Your task to perform on an android device: Show the shopping cart on amazon. Search for amazon basics triple a on amazon, select the first entry, add it to the cart, then select checkout. Image 0: 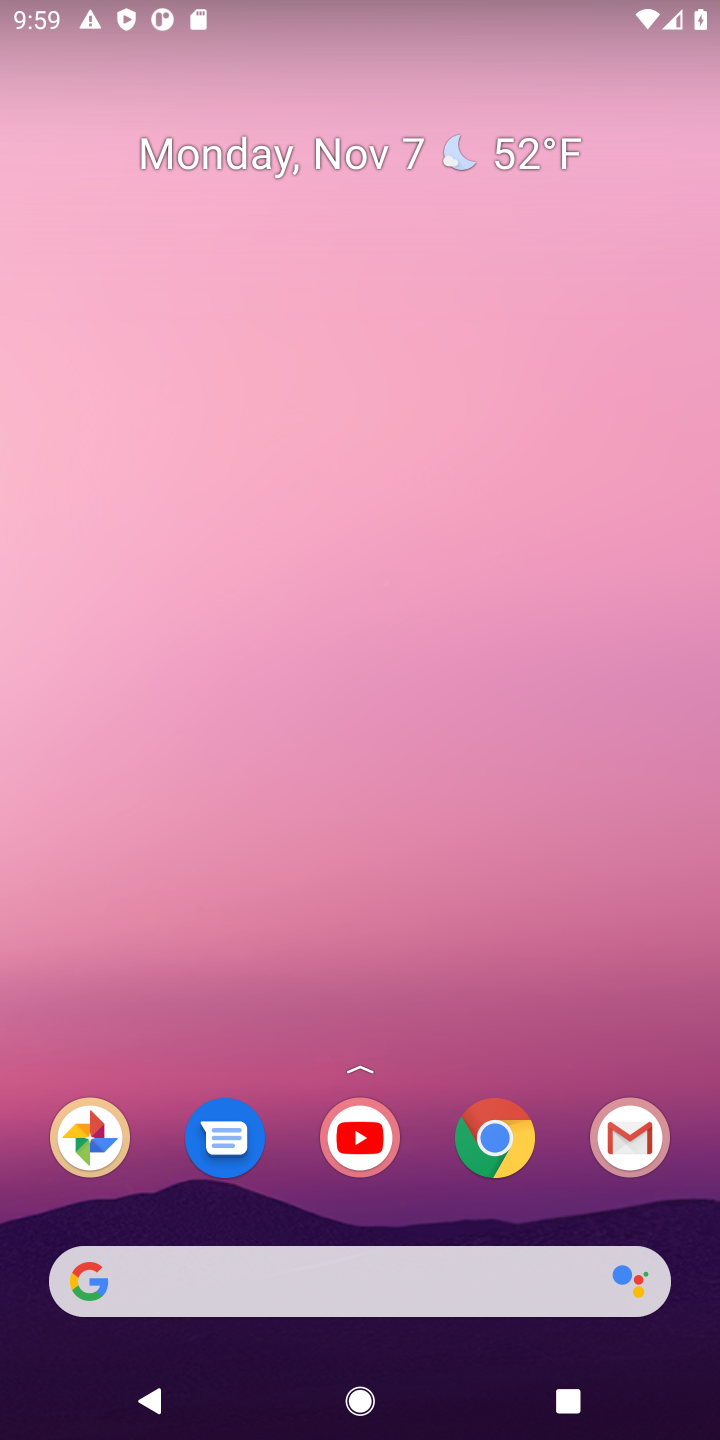
Step 0: drag from (422, 1198) to (346, 275)
Your task to perform on an android device: Show the shopping cart on amazon. Search for amazon basics triple a on amazon, select the first entry, add it to the cart, then select checkout. Image 1: 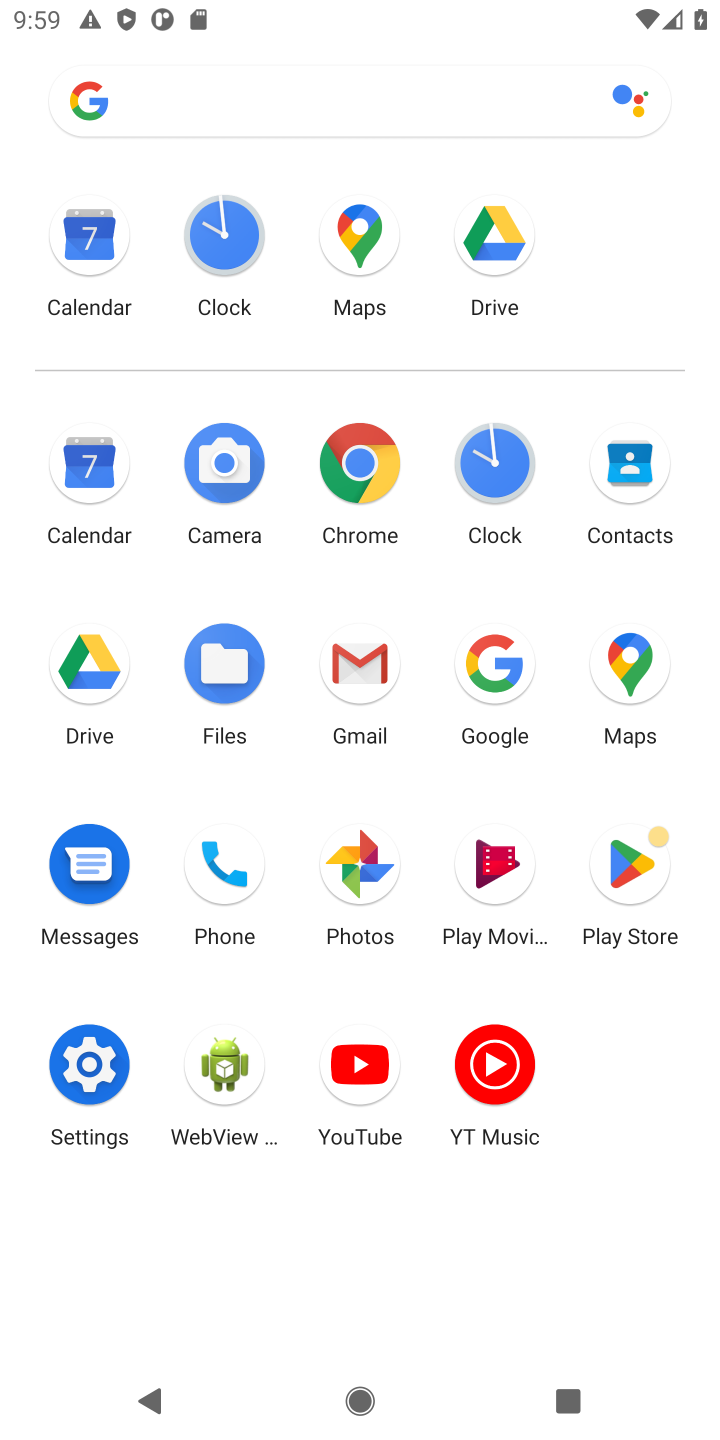
Step 1: click (359, 457)
Your task to perform on an android device: Show the shopping cart on amazon. Search for amazon basics triple a on amazon, select the first entry, add it to the cart, then select checkout. Image 2: 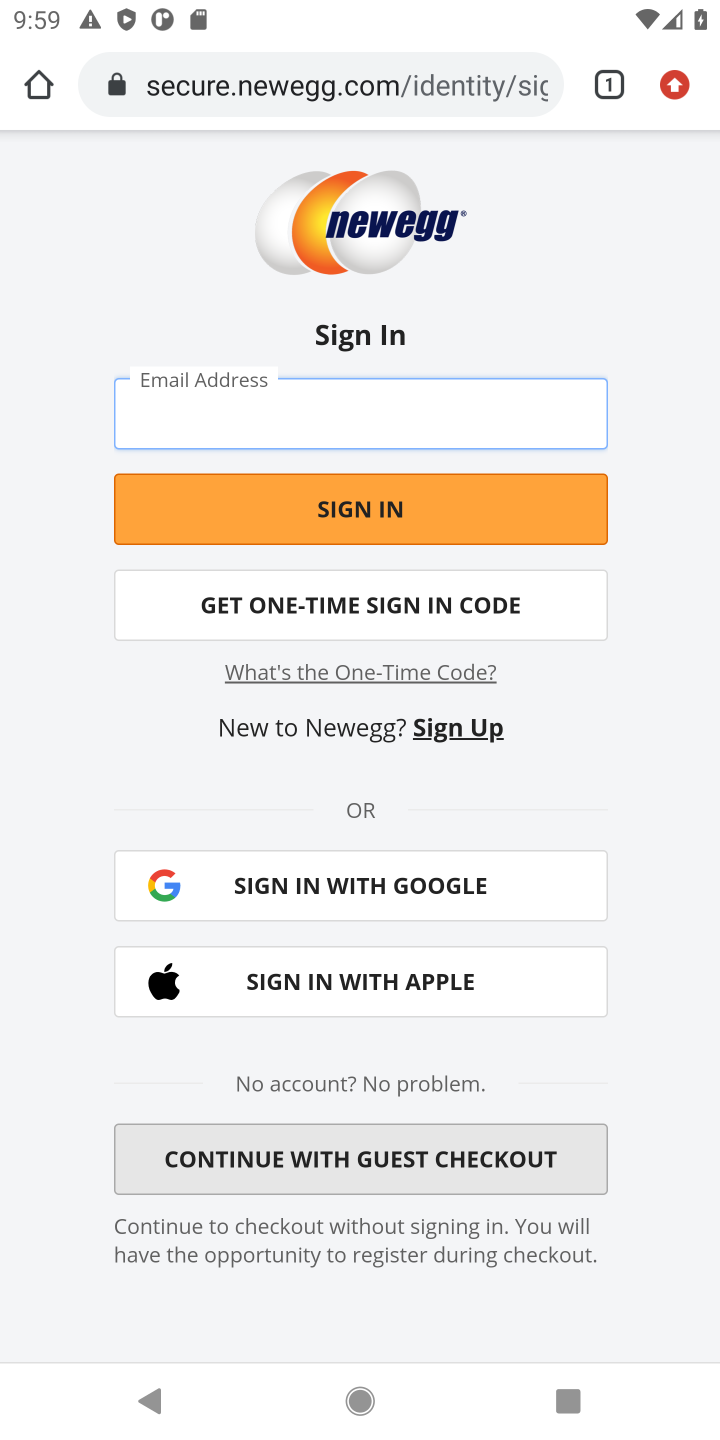
Step 2: click (395, 85)
Your task to perform on an android device: Show the shopping cart on amazon. Search for amazon basics triple a on amazon, select the first entry, add it to the cart, then select checkout. Image 3: 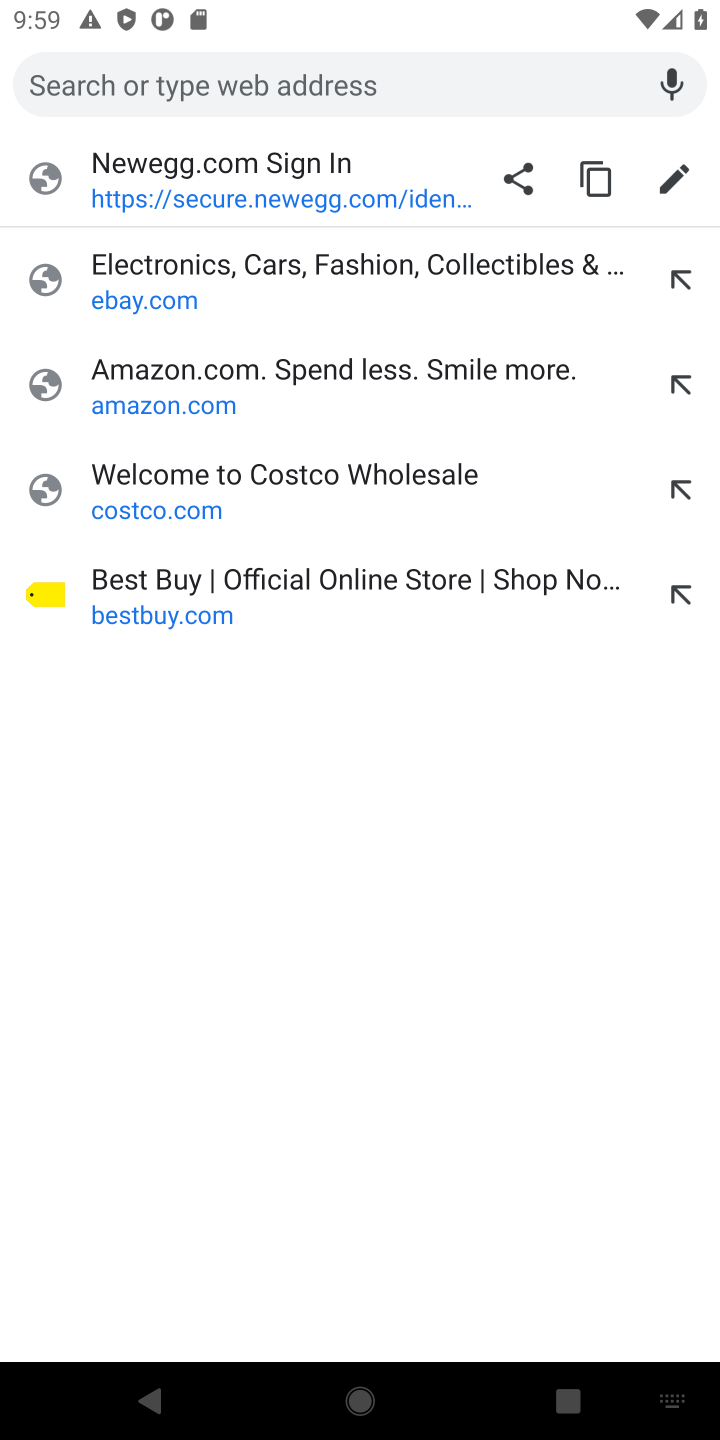
Step 3: type "amazon.com"
Your task to perform on an android device: Show the shopping cart on amazon. Search for amazon basics triple a on amazon, select the first entry, add it to the cart, then select checkout. Image 4: 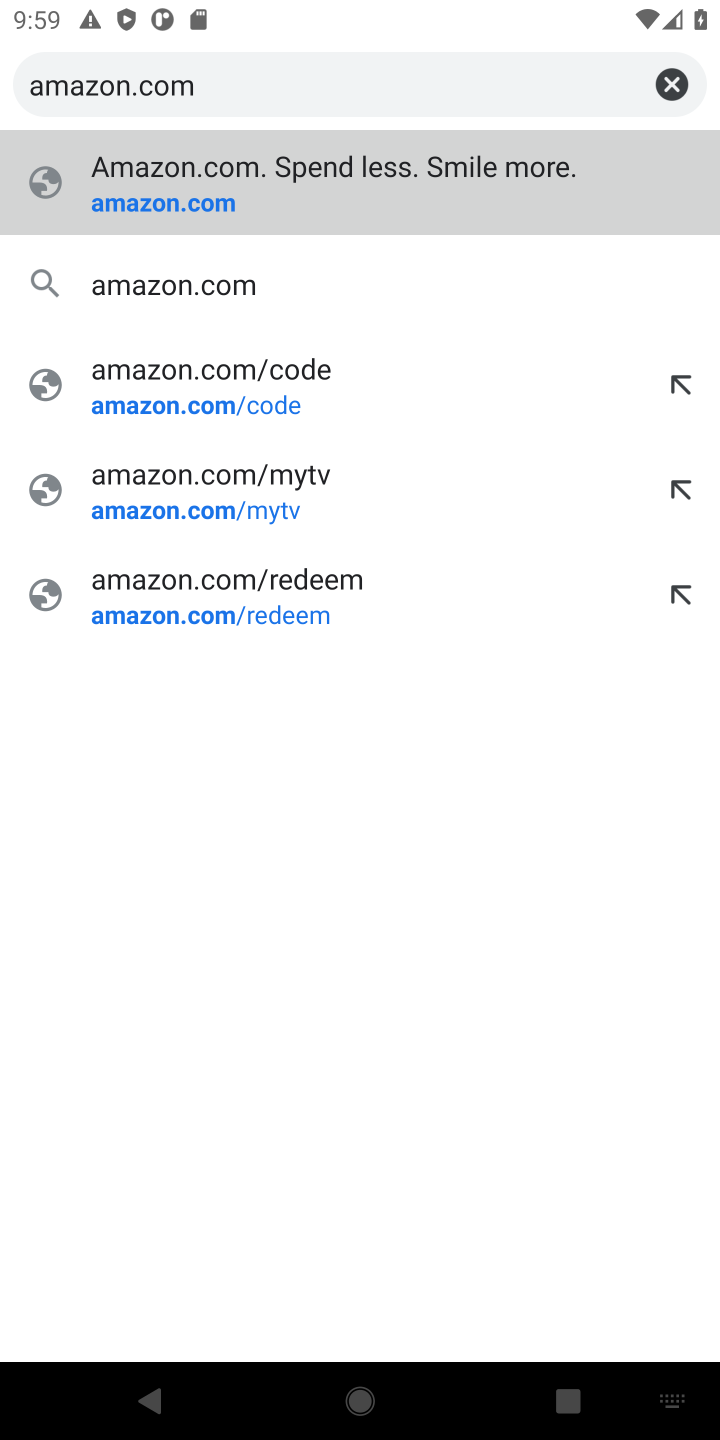
Step 4: press enter
Your task to perform on an android device: Show the shopping cart on amazon. Search for amazon basics triple a on amazon, select the first entry, add it to the cart, then select checkout. Image 5: 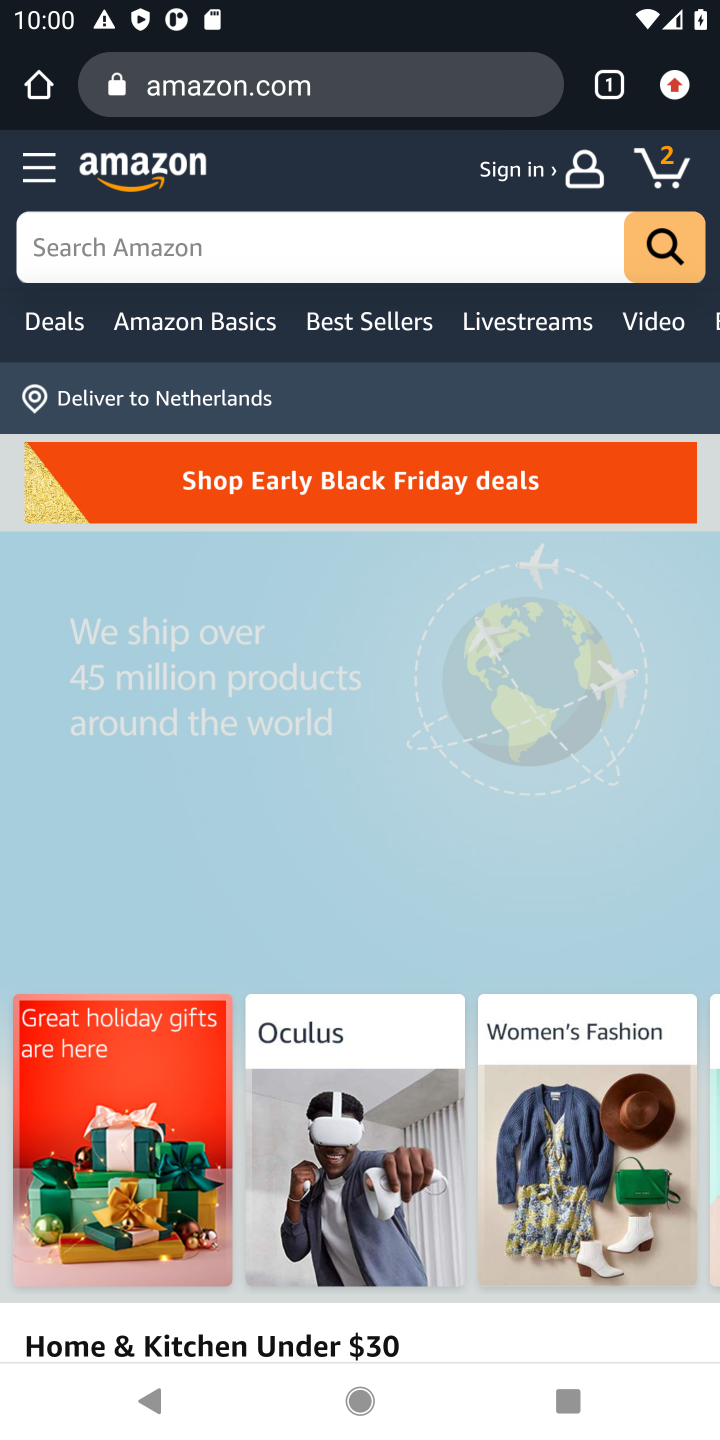
Step 5: click (664, 169)
Your task to perform on an android device: Show the shopping cart on amazon. Search for amazon basics triple a on amazon, select the first entry, add it to the cart, then select checkout. Image 6: 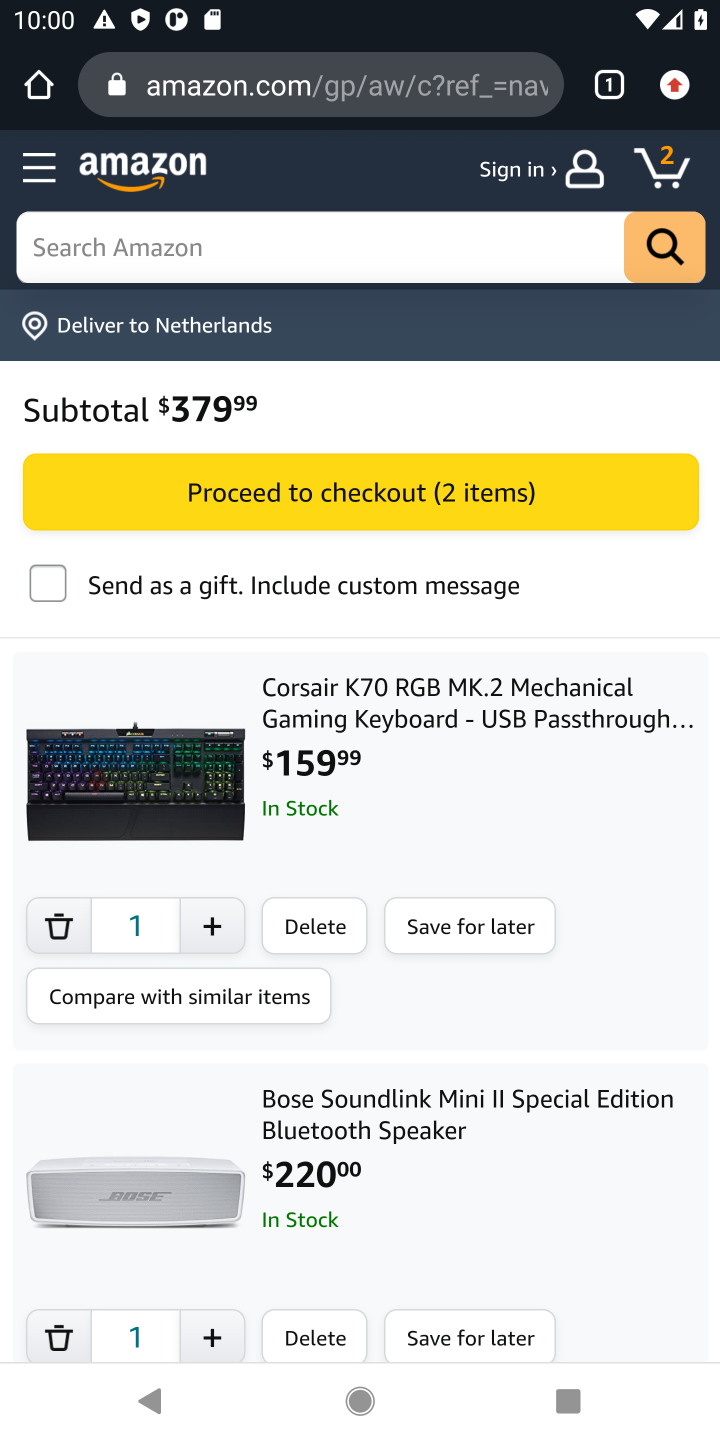
Step 6: click (405, 243)
Your task to perform on an android device: Show the shopping cart on amazon. Search for amazon basics triple a on amazon, select the first entry, add it to the cart, then select checkout. Image 7: 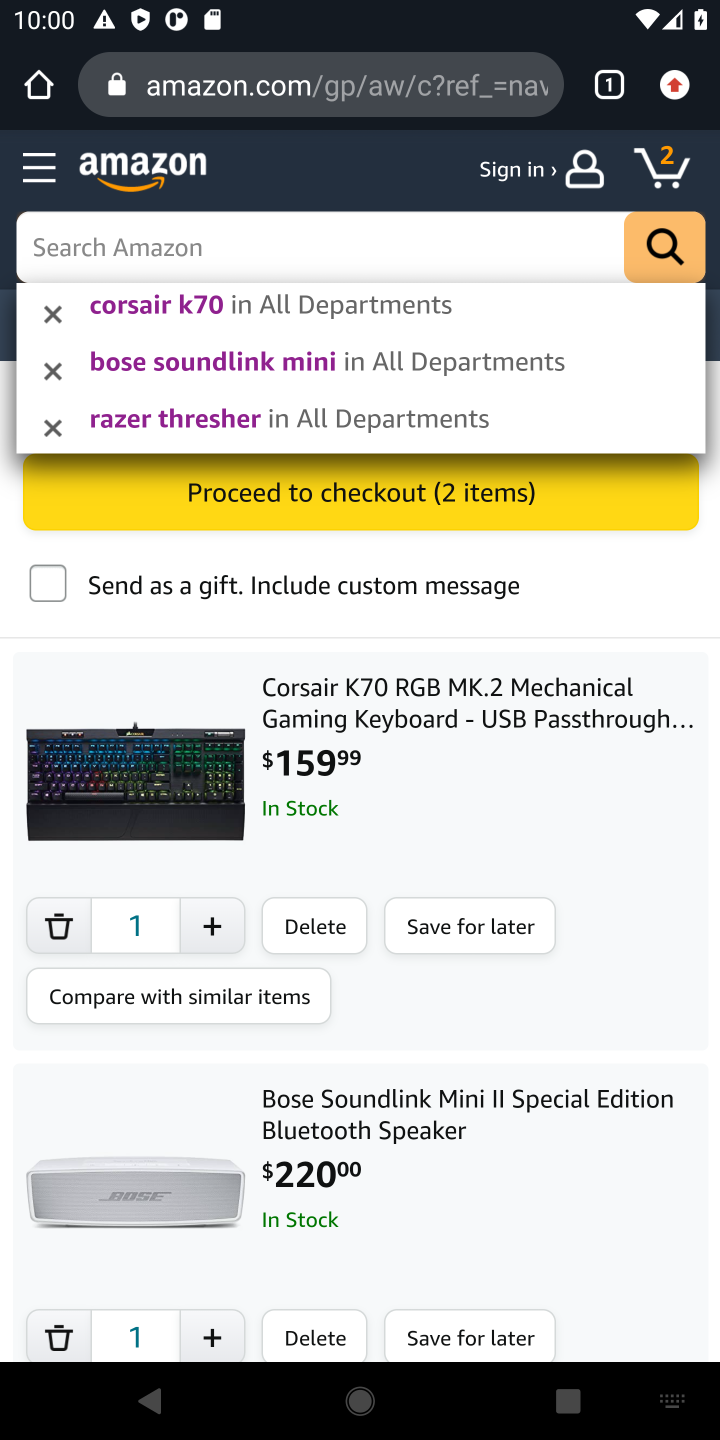
Step 7: type "amazon basic  triple a"
Your task to perform on an android device: Show the shopping cart on amazon. Search for amazon basics triple a on amazon, select the first entry, add it to the cart, then select checkout. Image 8: 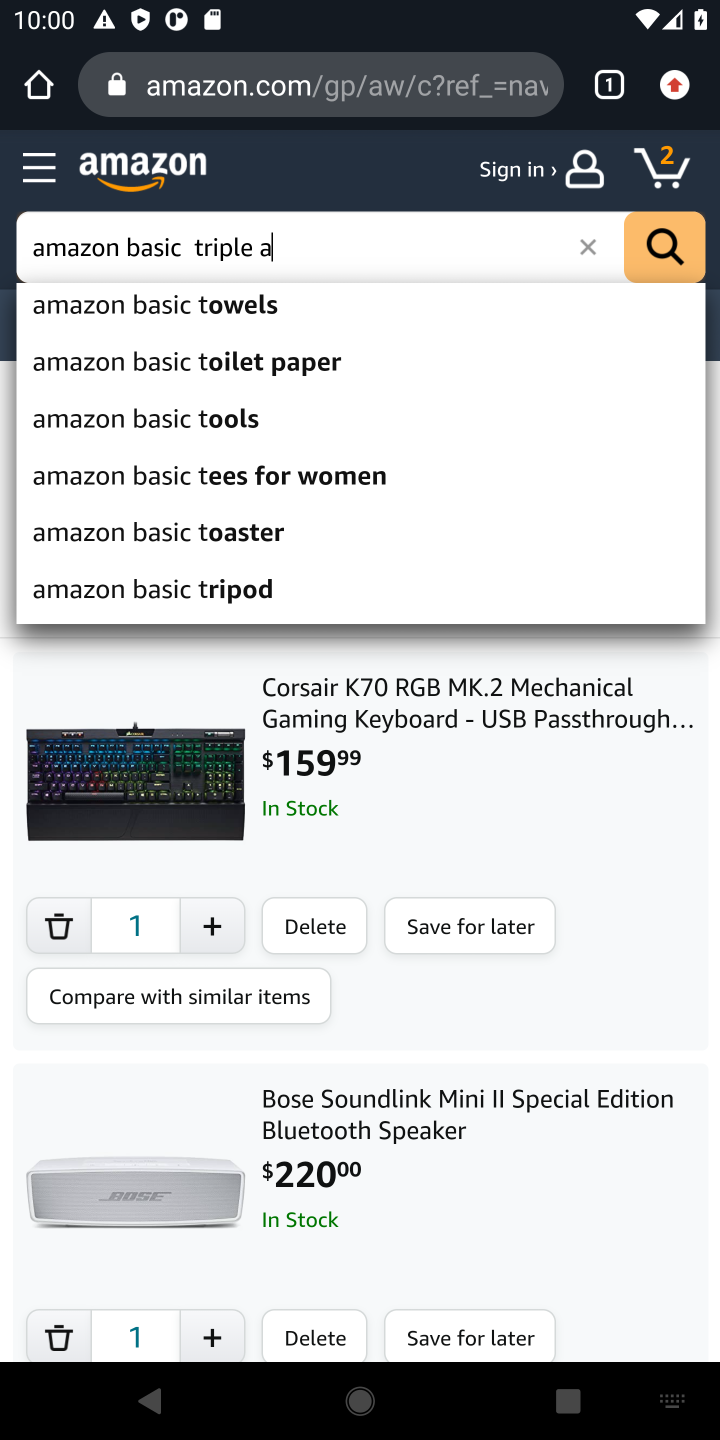
Step 8: press enter
Your task to perform on an android device: Show the shopping cart on amazon. Search for amazon basics triple a on amazon, select the first entry, add it to the cart, then select checkout. Image 9: 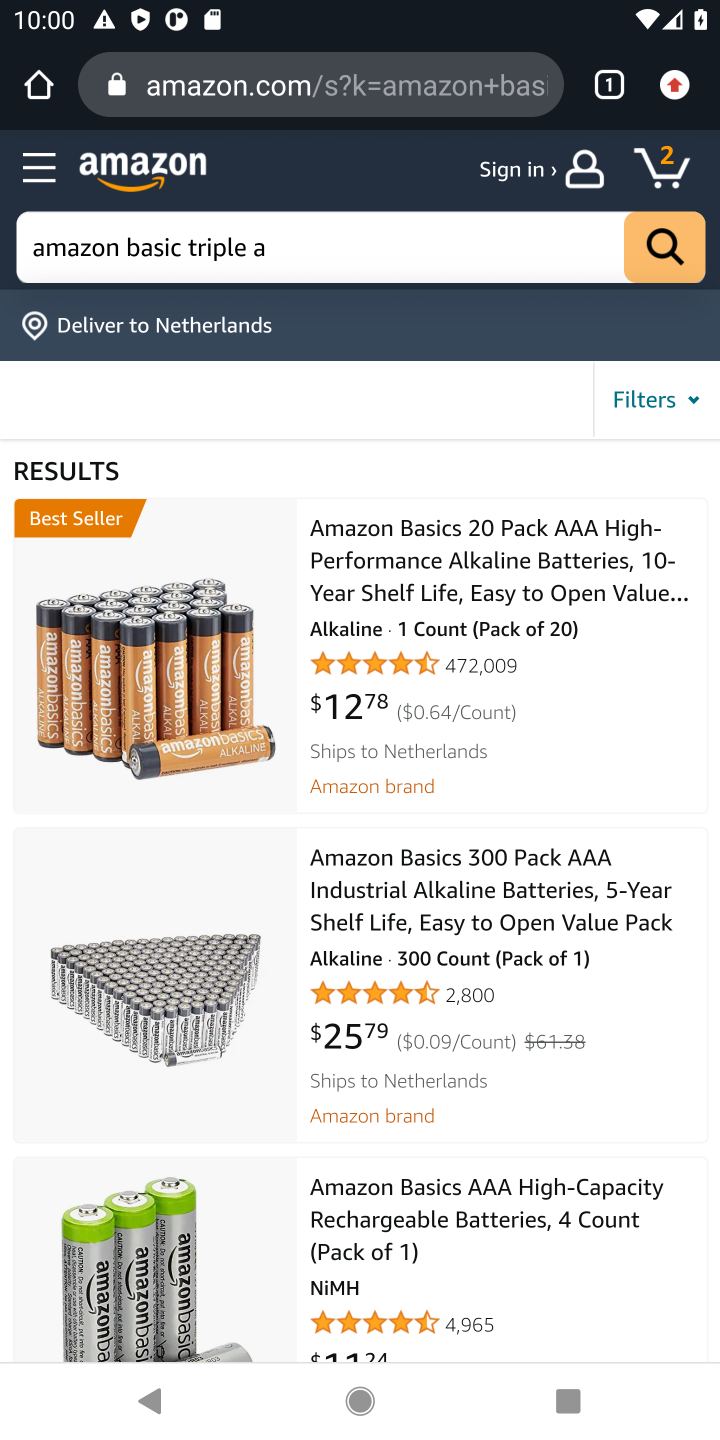
Step 9: click (443, 598)
Your task to perform on an android device: Show the shopping cart on amazon. Search for amazon basics triple a on amazon, select the first entry, add it to the cart, then select checkout. Image 10: 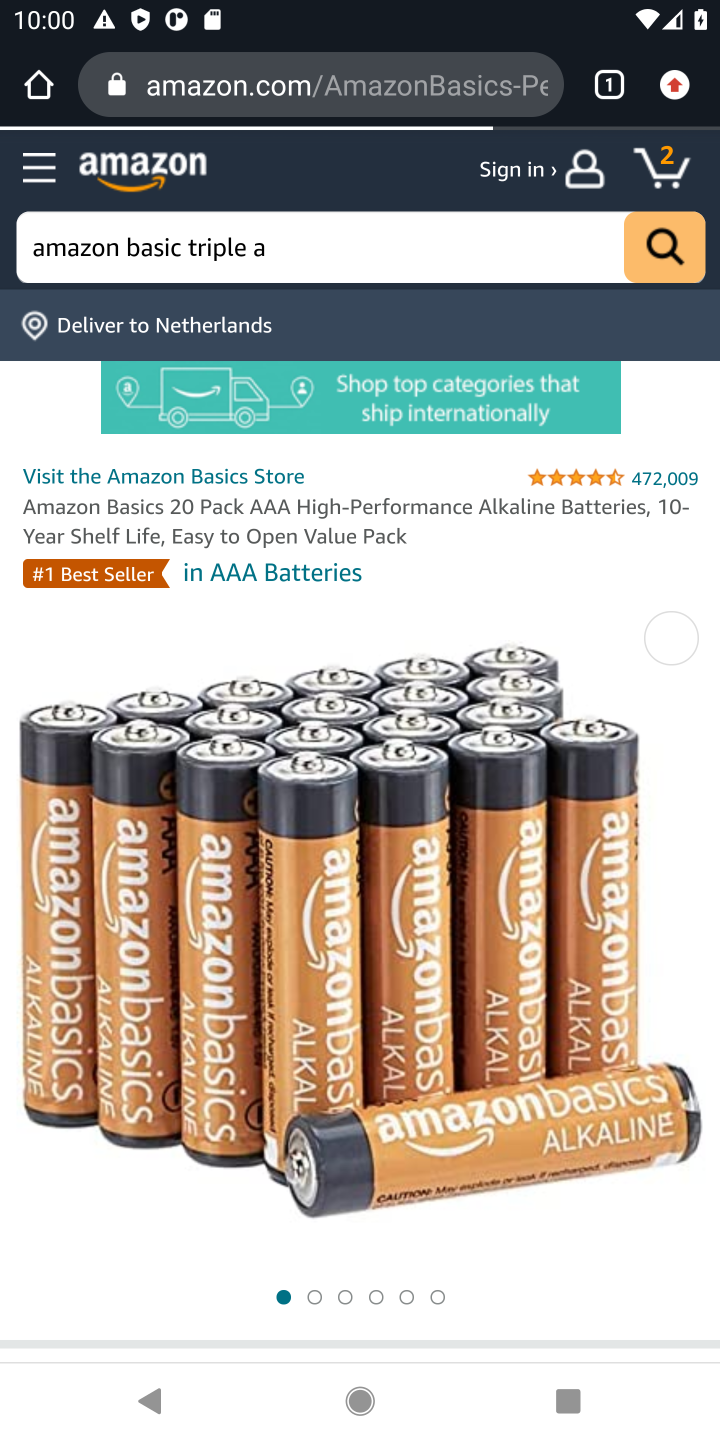
Step 10: drag from (207, 1053) to (301, 149)
Your task to perform on an android device: Show the shopping cart on amazon. Search for amazon basics triple a on amazon, select the first entry, add it to the cart, then select checkout. Image 11: 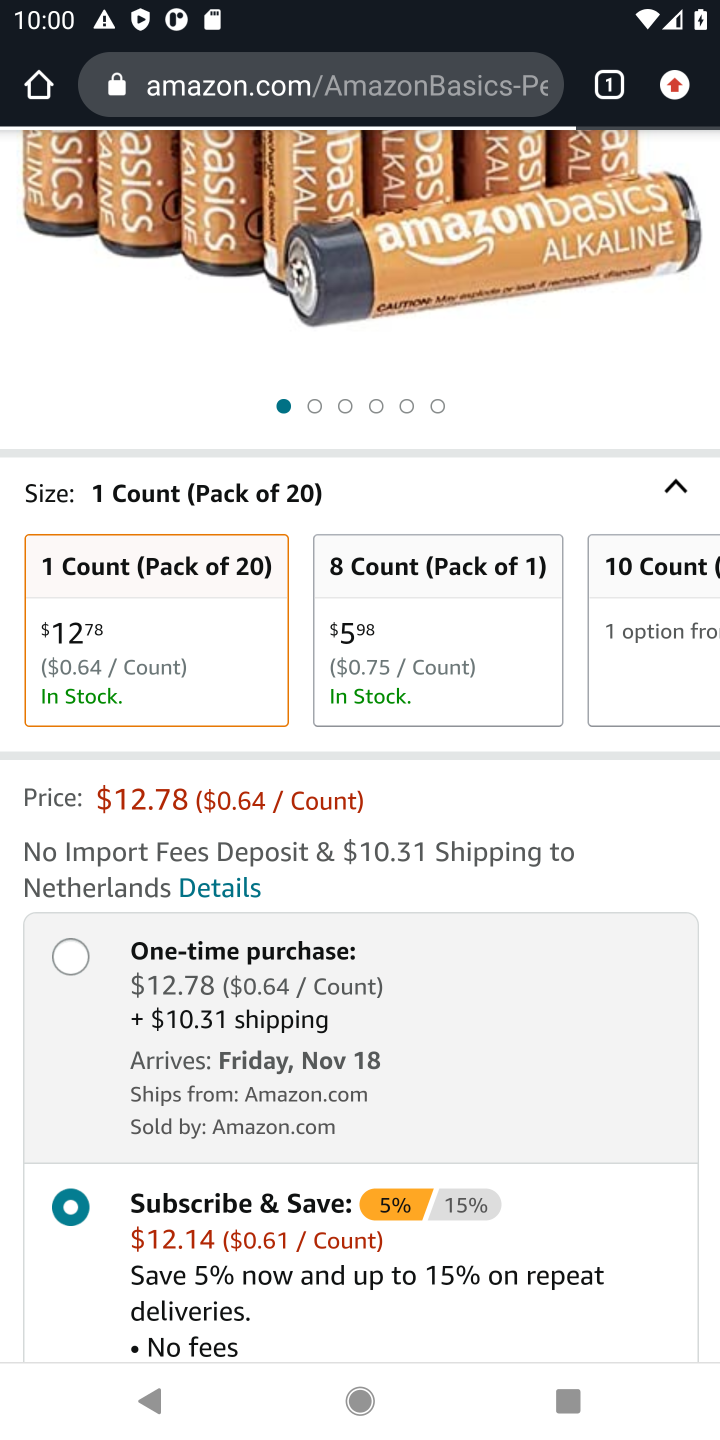
Step 11: drag from (468, 976) to (533, 330)
Your task to perform on an android device: Show the shopping cart on amazon. Search for amazon basics triple a on amazon, select the first entry, add it to the cart, then select checkout. Image 12: 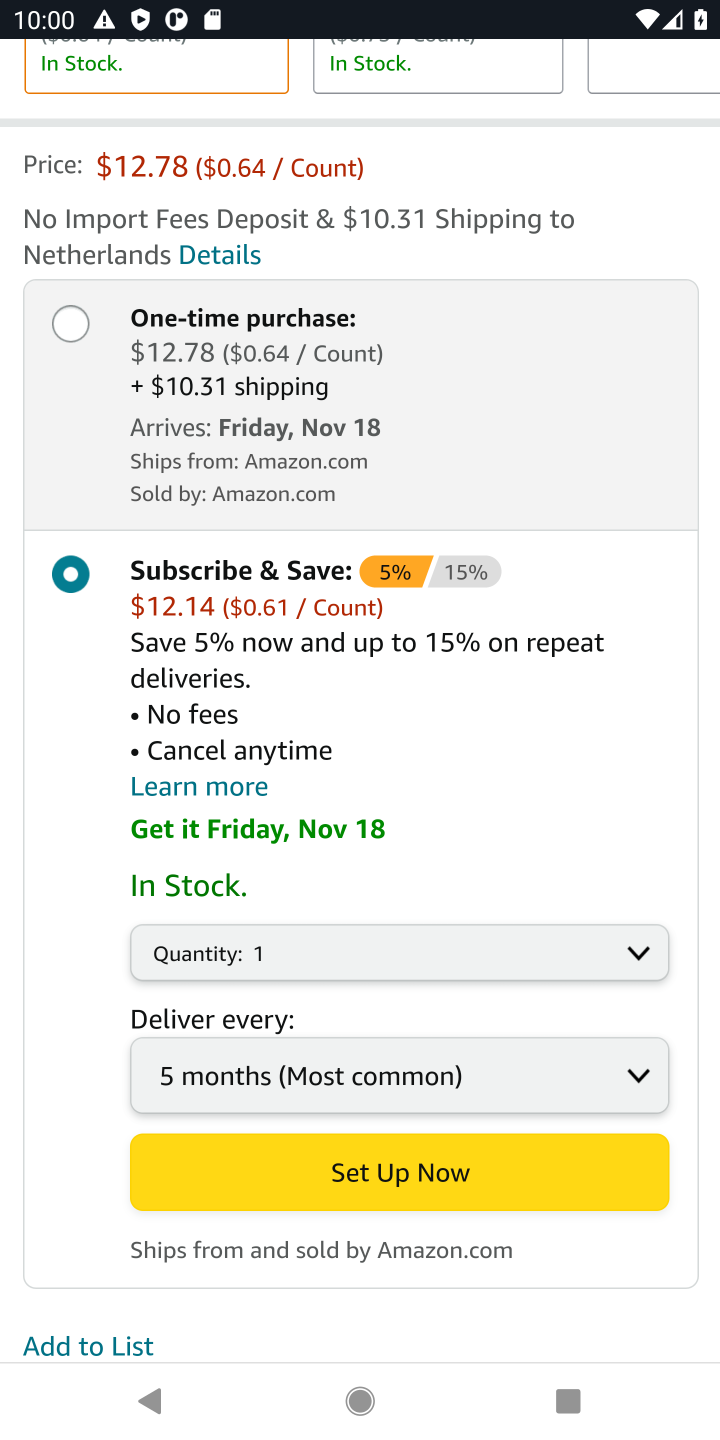
Step 12: click (224, 333)
Your task to perform on an android device: Show the shopping cart on amazon. Search for amazon basics triple a on amazon, select the first entry, add it to the cart, then select checkout. Image 13: 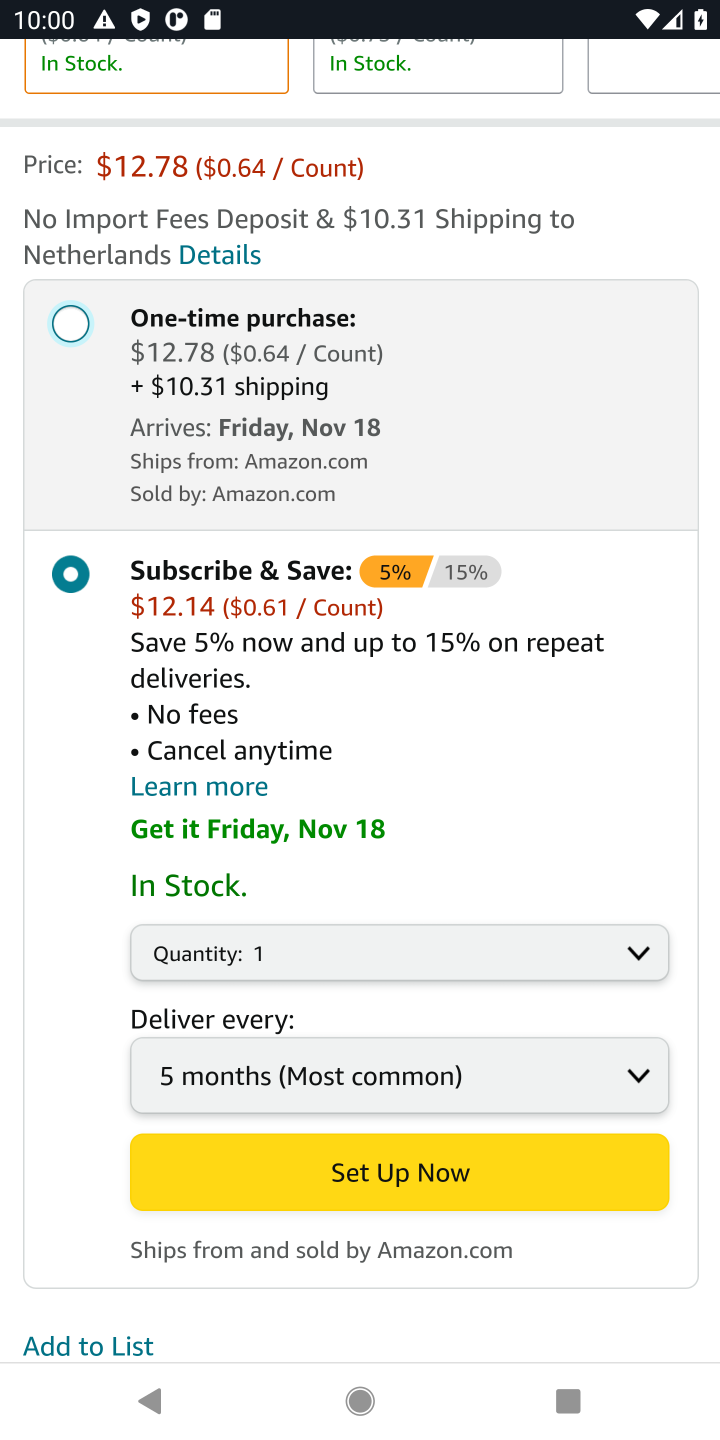
Step 13: click (268, 310)
Your task to perform on an android device: Show the shopping cart on amazon. Search for amazon basics triple a on amazon, select the first entry, add it to the cart, then select checkout. Image 14: 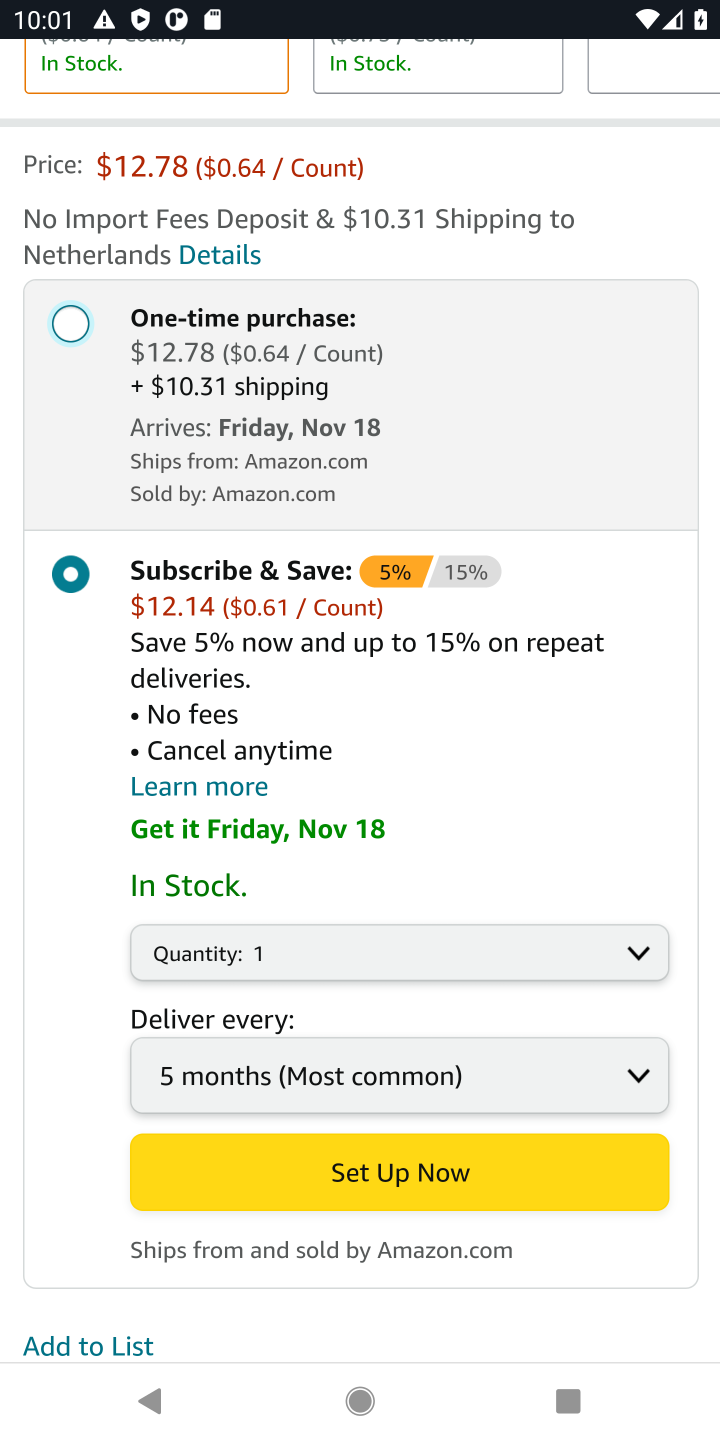
Step 14: click (64, 315)
Your task to perform on an android device: Show the shopping cart on amazon. Search for amazon basics triple a on amazon, select the first entry, add it to the cart, then select checkout. Image 15: 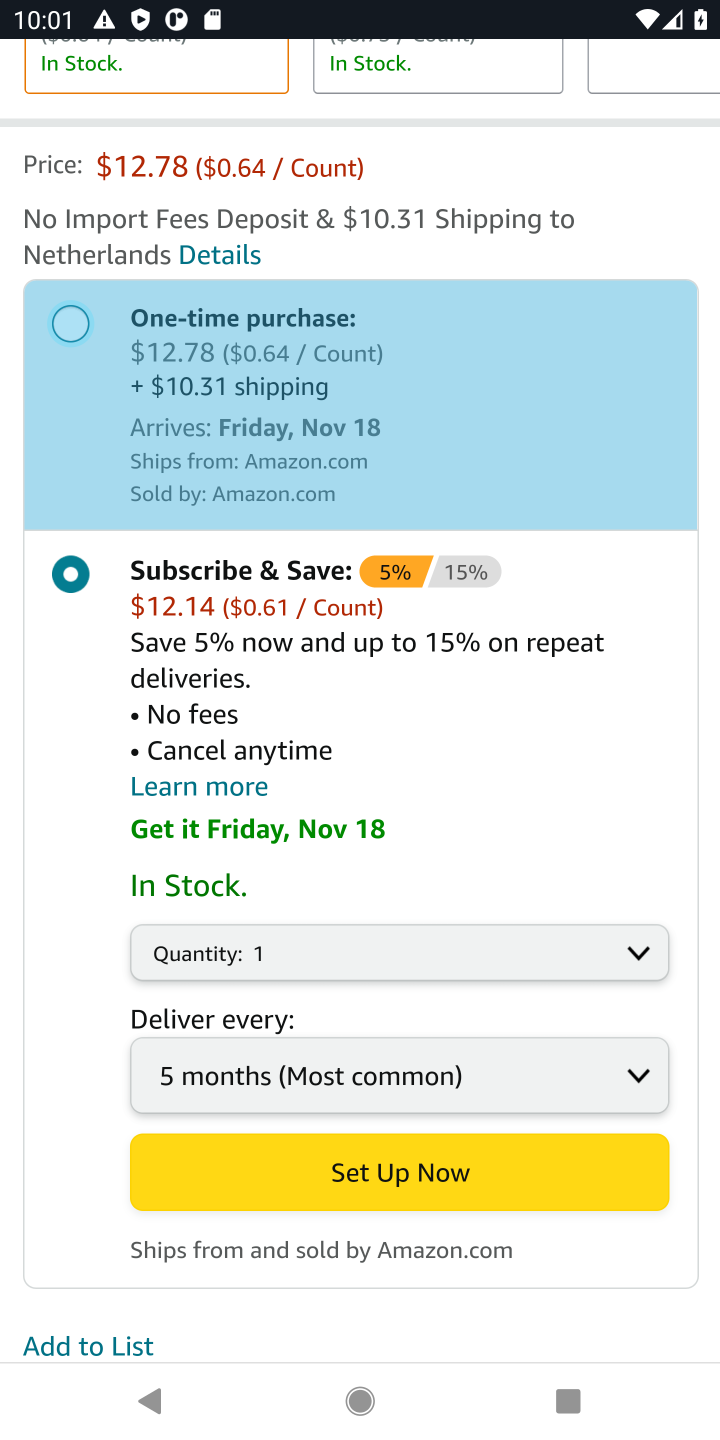
Step 15: click (212, 323)
Your task to perform on an android device: Show the shopping cart on amazon. Search for amazon basics triple a on amazon, select the first entry, add it to the cart, then select checkout. Image 16: 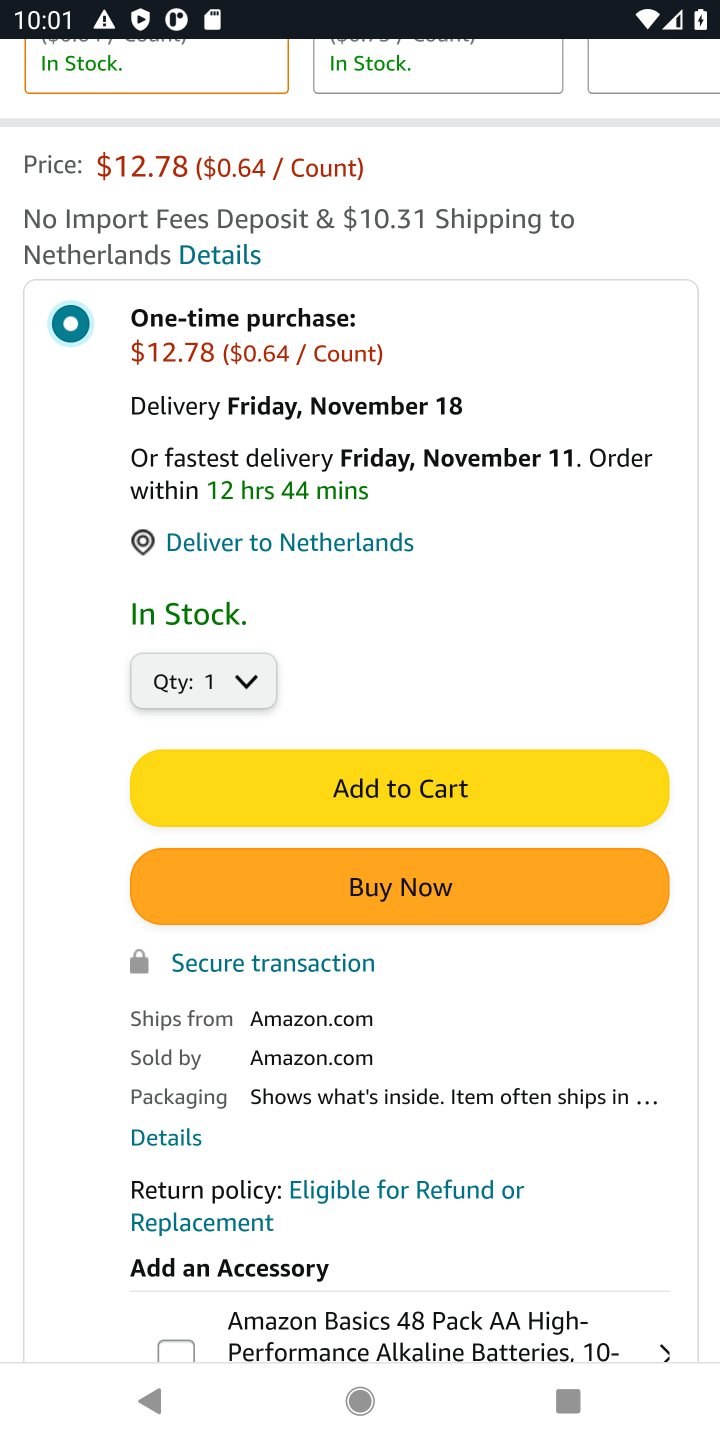
Step 16: click (424, 781)
Your task to perform on an android device: Show the shopping cart on amazon. Search for amazon basics triple a on amazon, select the first entry, add it to the cart, then select checkout. Image 17: 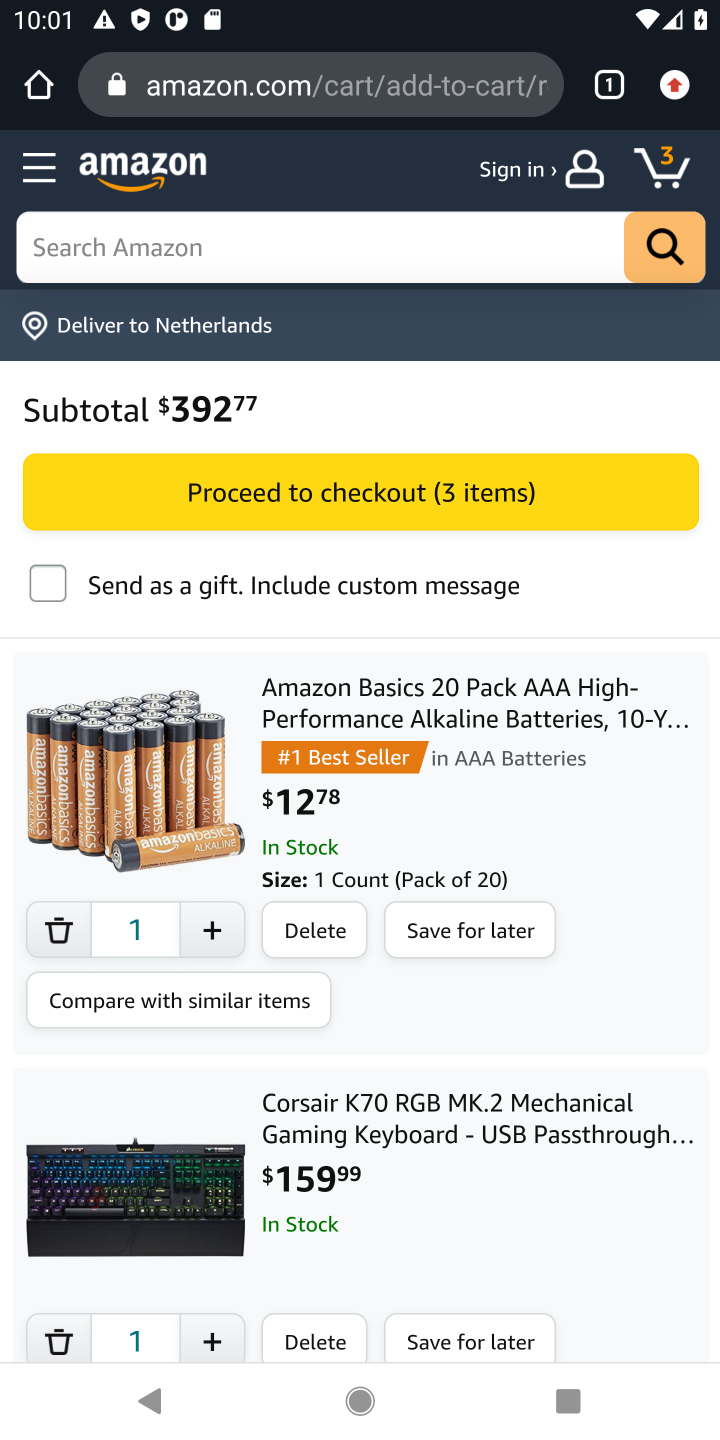
Step 17: click (662, 171)
Your task to perform on an android device: Show the shopping cart on amazon. Search for amazon basics triple a on amazon, select the first entry, add it to the cart, then select checkout. Image 18: 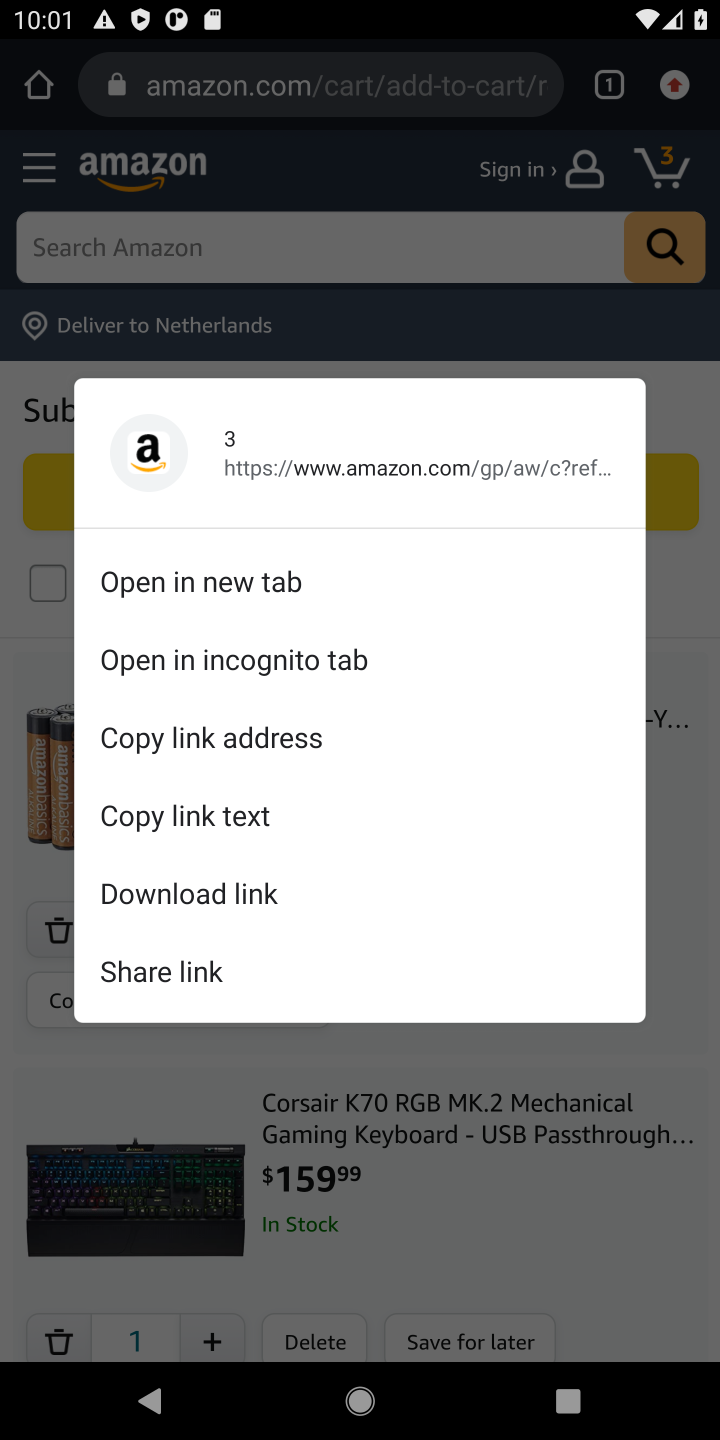
Step 18: click (685, 364)
Your task to perform on an android device: Show the shopping cart on amazon. Search for amazon basics triple a on amazon, select the first entry, add it to the cart, then select checkout. Image 19: 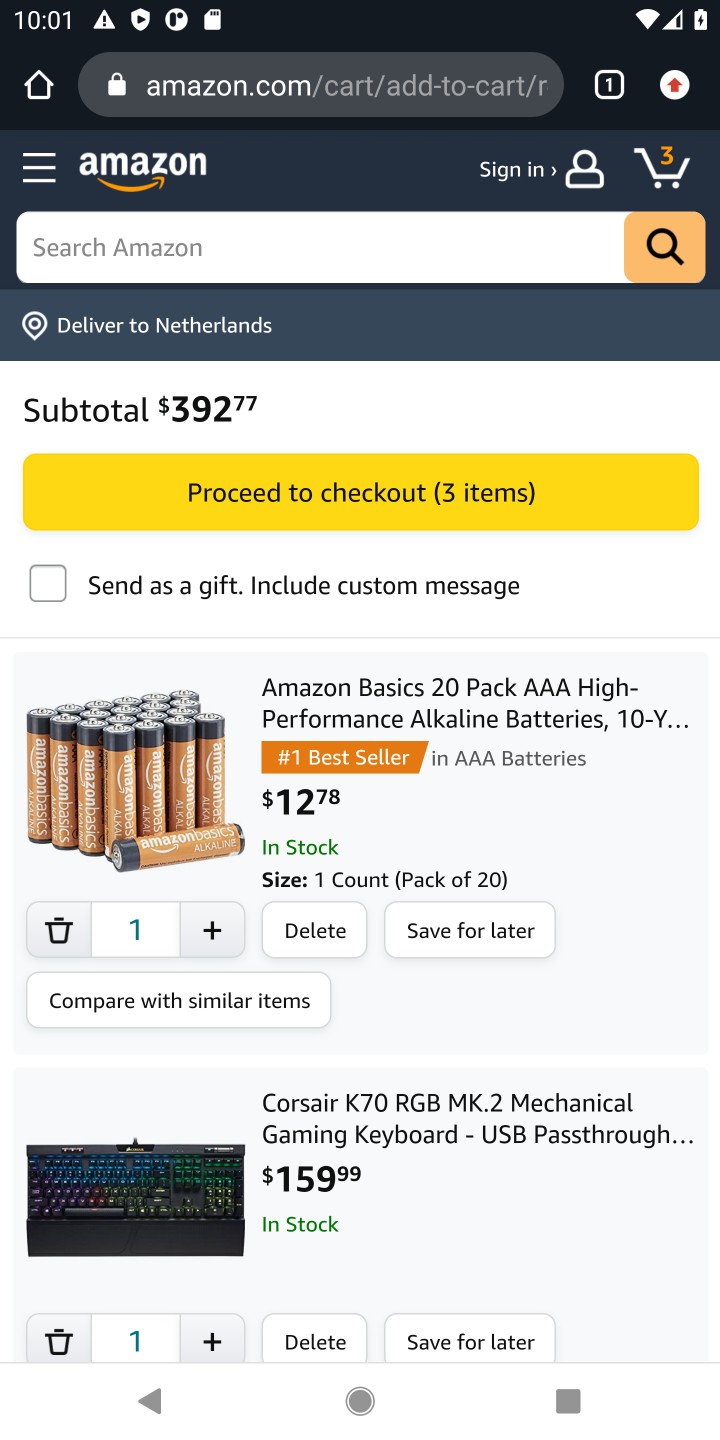
Step 19: click (531, 485)
Your task to perform on an android device: Show the shopping cart on amazon. Search for amazon basics triple a on amazon, select the first entry, add it to the cart, then select checkout. Image 20: 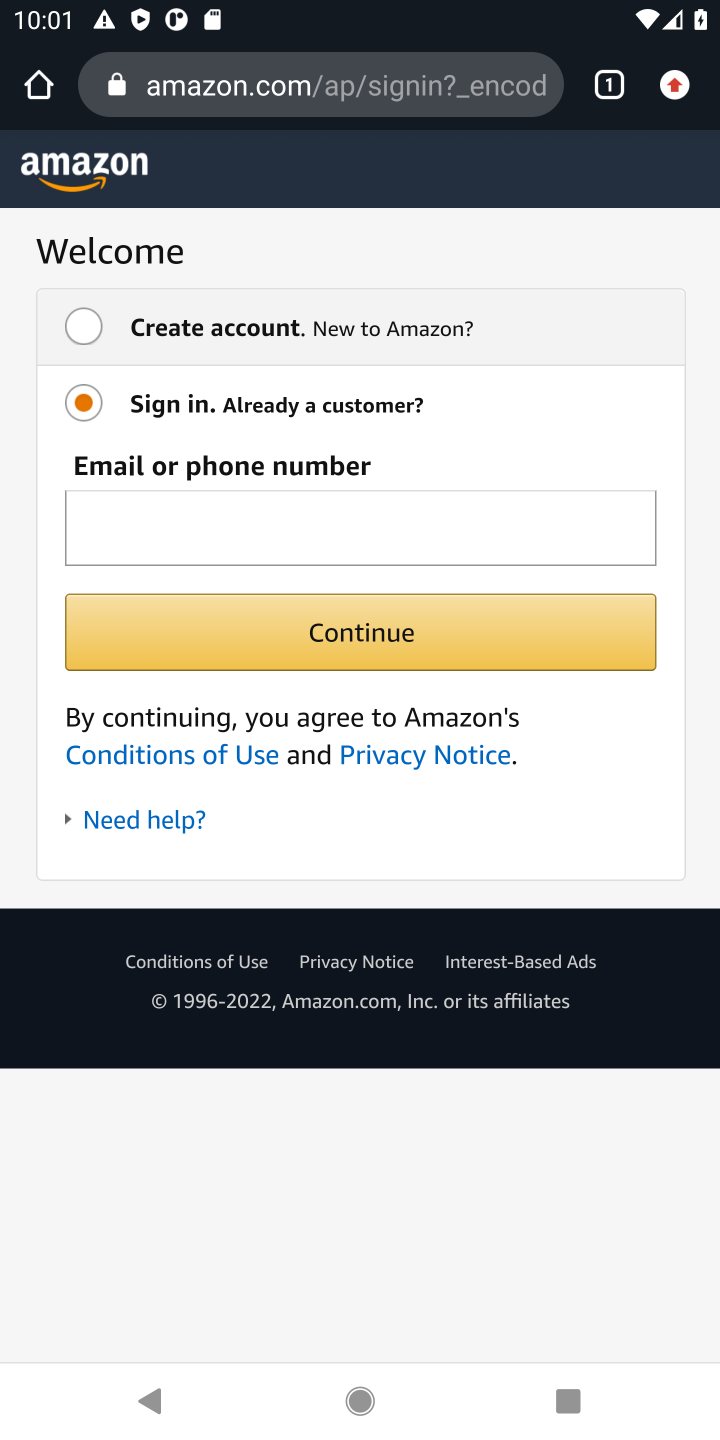
Step 20: task complete